Your task to perform on an android device: Is it going to rain today? Image 0: 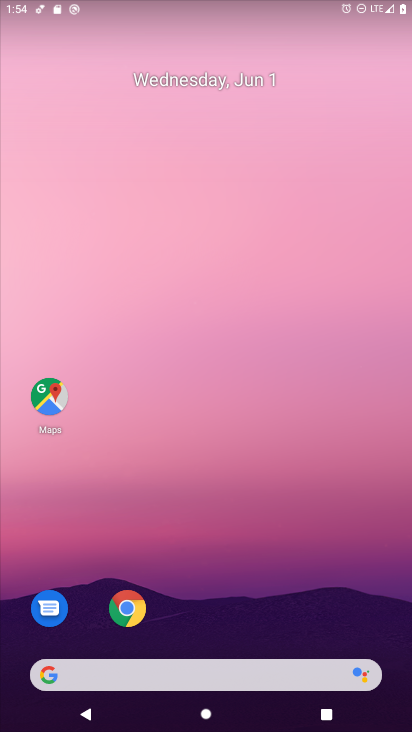
Step 0: drag from (223, 626) to (221, 86)
Your task to perform on an android device: Is it going to rain today? Image 1: 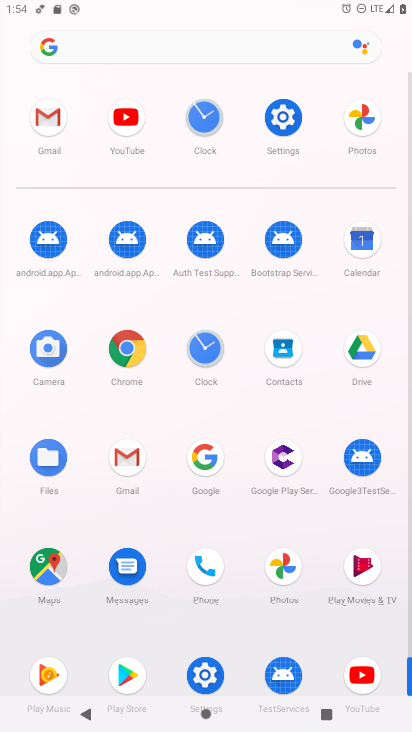
Step 1: click (217, 464)
Your task to perform on an android device: Is it going to rain today? Image 2: 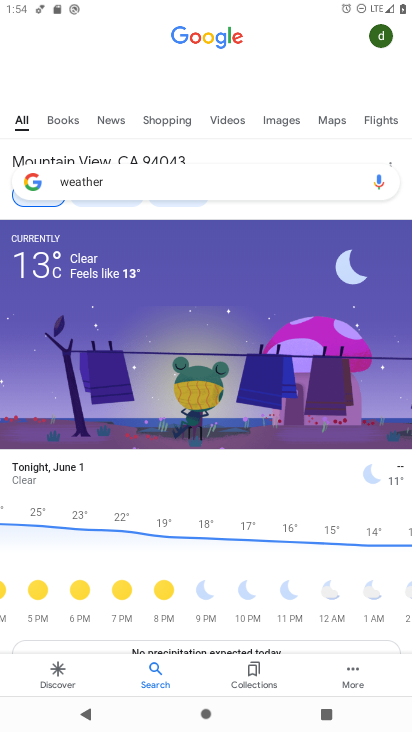
Step 2: task complete